Your task to perform on an android device: check data usage Image 0: 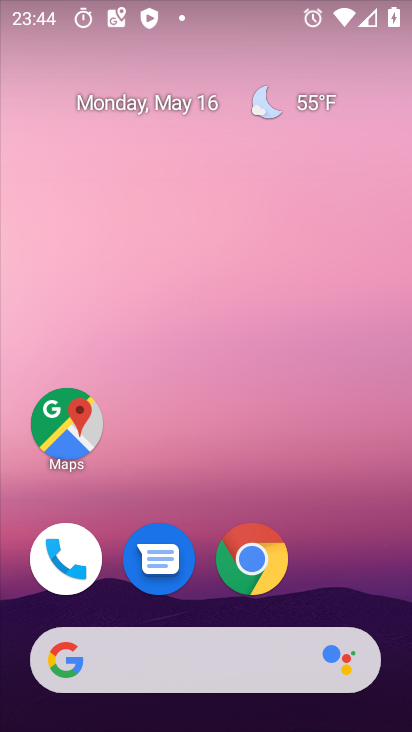
Step 0: drag from (351, 568) to (334, 197)
Your task to perform on an android device: check data usage Image 1: 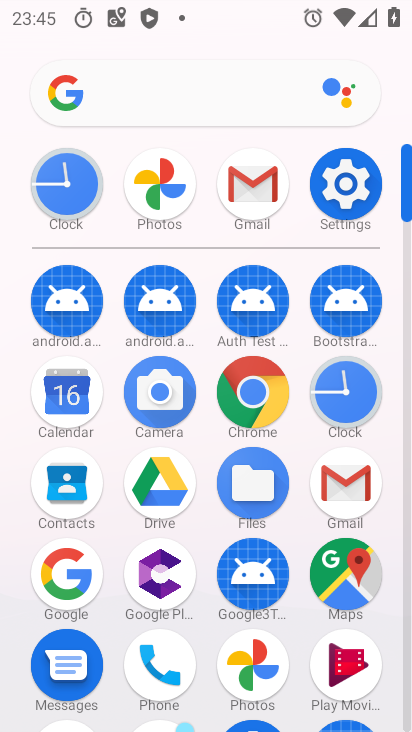
Step 1: click (361, 184)
Your task to perform on an android device: check data usage Image 2: 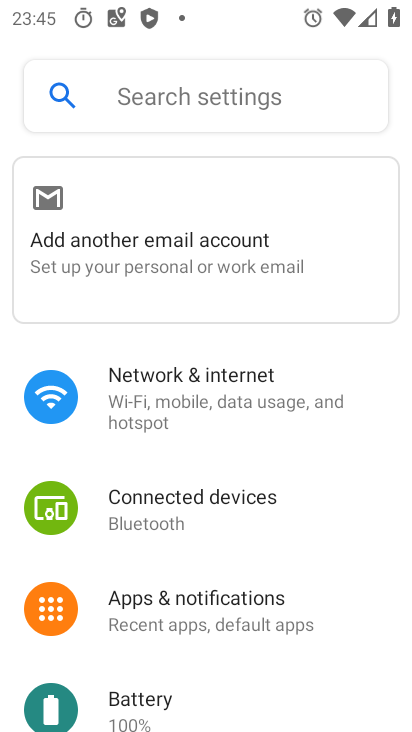
Step 2: drag from (254, 563) to (351, 157)
Your task to perform on an android device: check data usage Image 3: 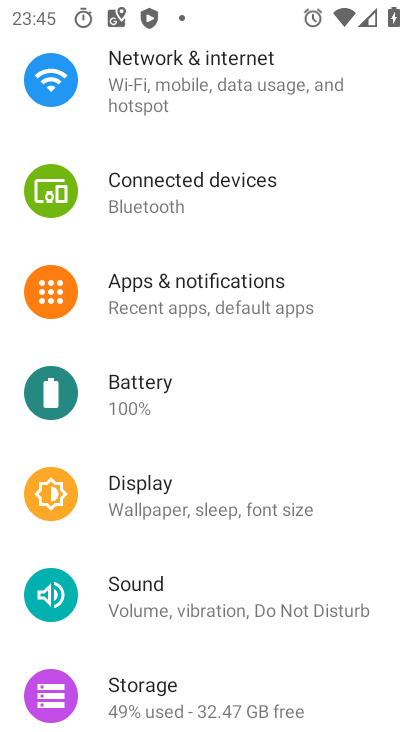
Step 3: click (215, 94)
Your task to perform on an android device: check data usage Image 4: 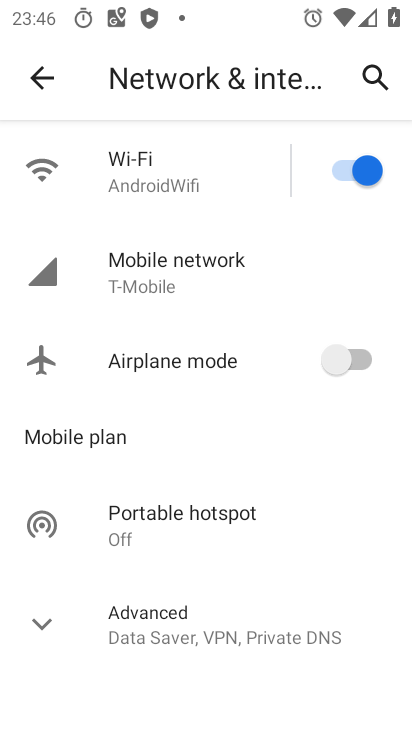
Step 4: click (172, 252)
Your task to perform on an android device: check data usage Image 5: 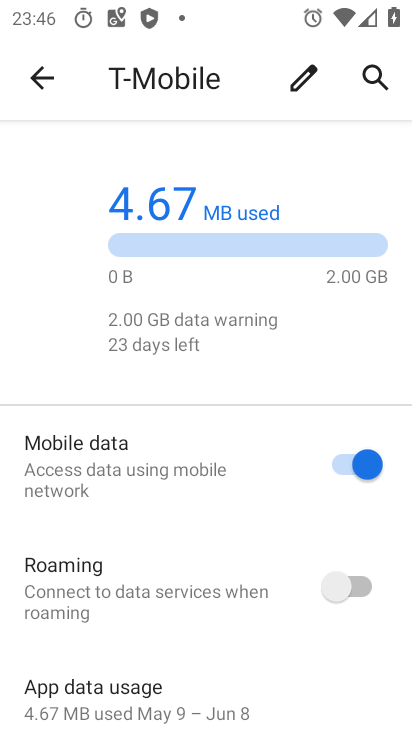
Step 5: task complete